Your task to perform on an android device: Add razer blade to the cart on walmart.com, then select checkout. Image 0: 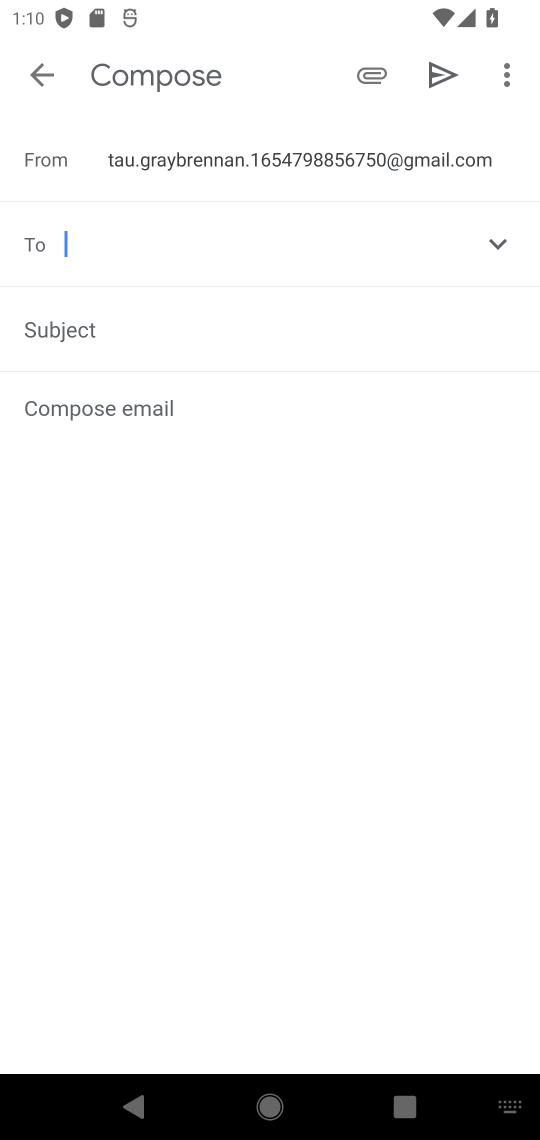
Step 0: press home button
Your task to perform on an android device: Add razer blade to the cart on walmart.com, then select checkout. Image 1: 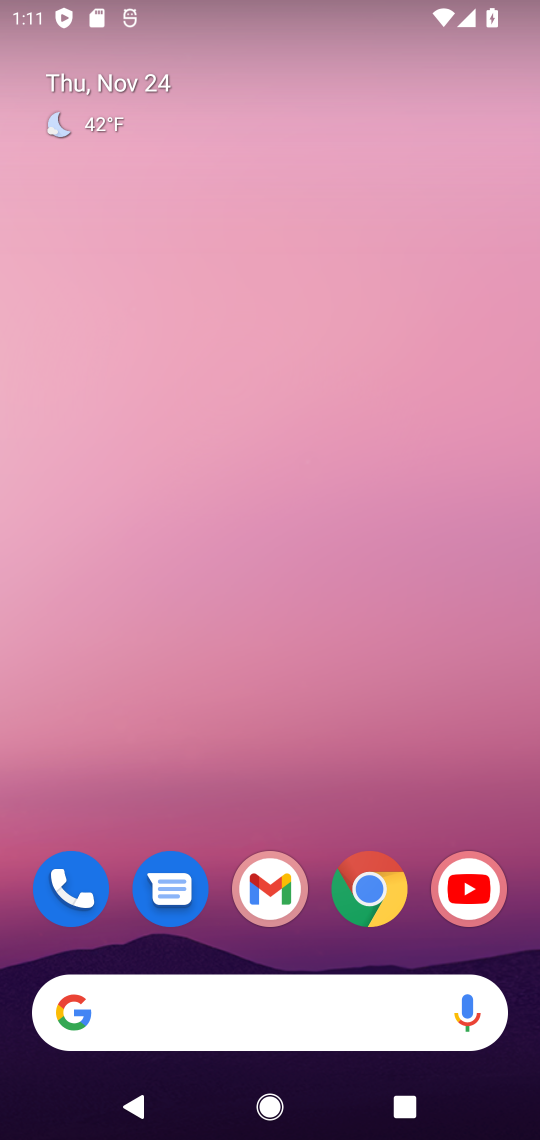
Step 1: click (378, 890)
Your task to perform on an android device: Add razer blade to the cart on walmart.com, then select checkout. Image 2: 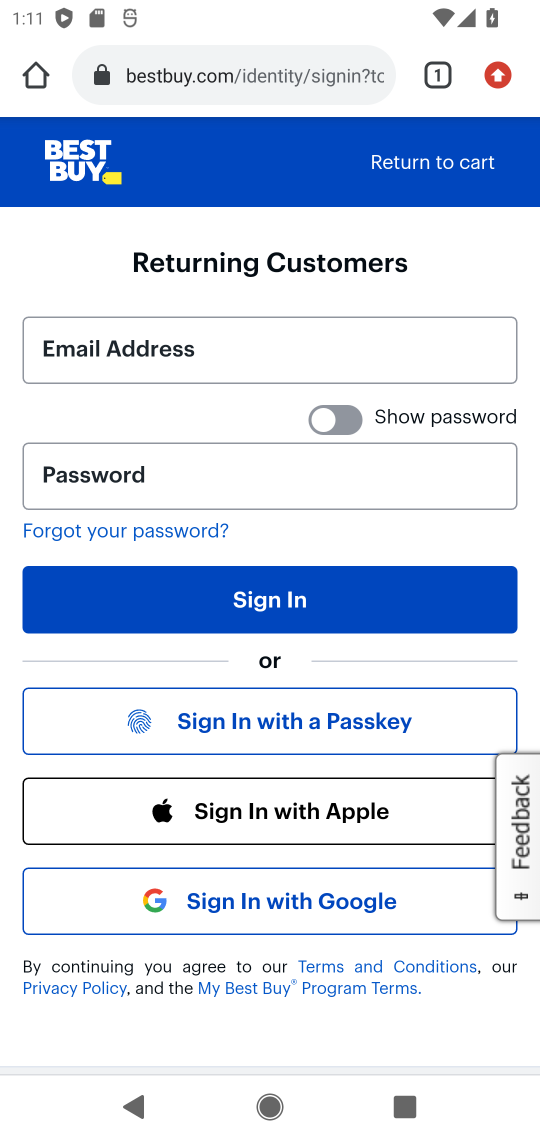
Step 2: click (210, 75)
Your task to perform on an android device: Add razer blade to the cart on walmart.com, then select checkout. Image 3: 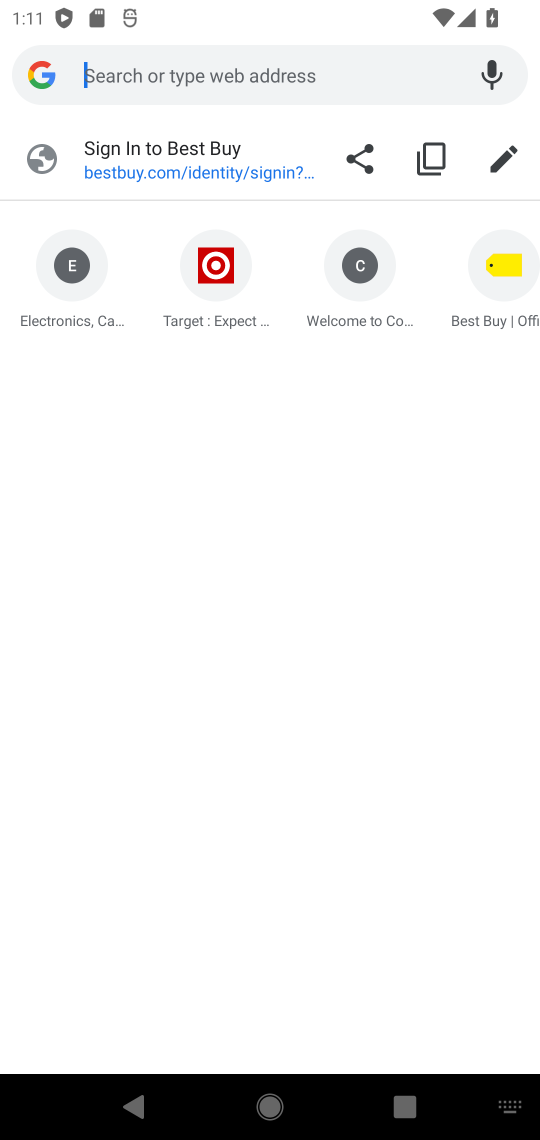
Step 3: type "walmart.com"
Your task to perform on an android device: Add razer blade to the cart on walmart.com, then select checkout. Image 4: 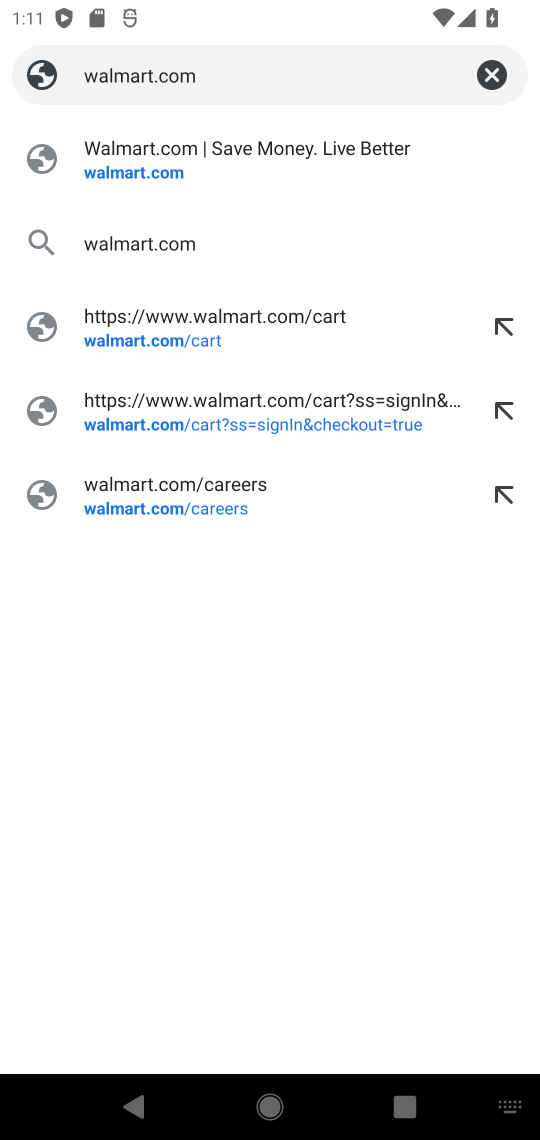
Step 4: click (132, 173)
Your task to perform on an android device: Add razer blade to the cart on walmart.com, then select checkout. Image 5: 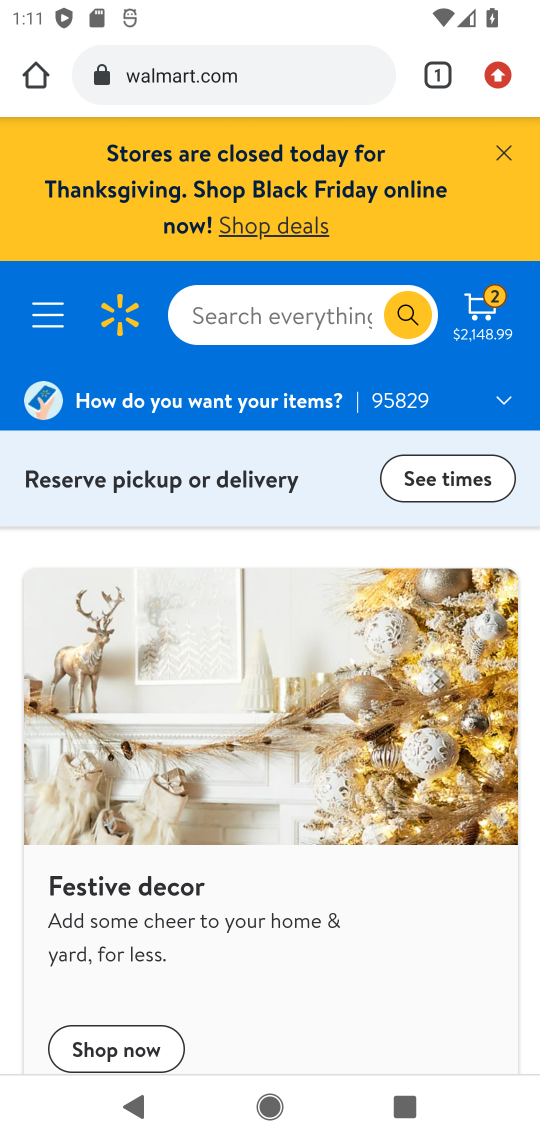
Step 5: click (234, 322)
Your task to perform on an android device: Add razer blade to the cart on walmart.com, then select checkout. Image 6: 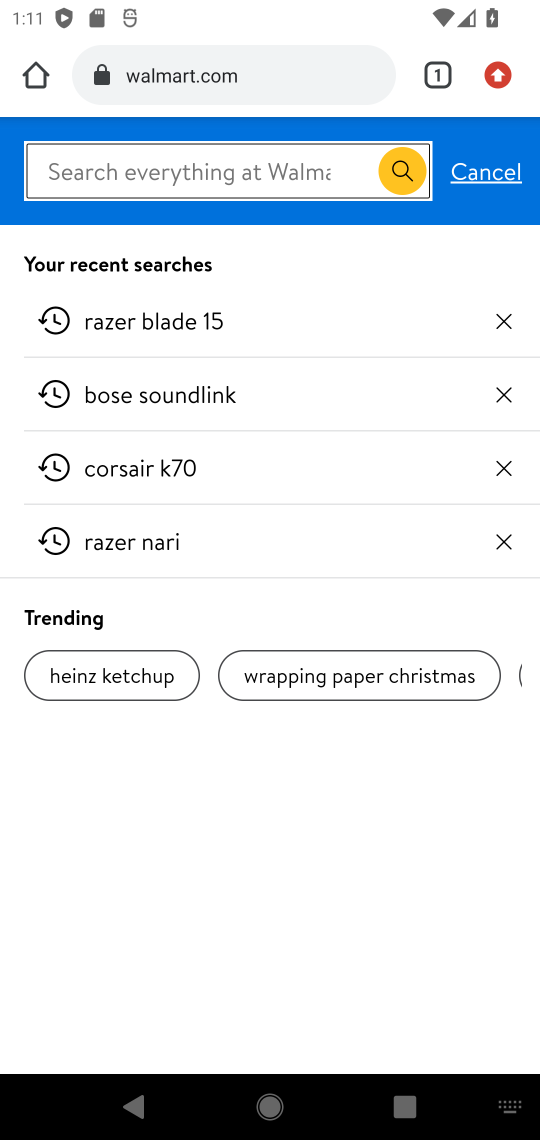
Step 6: type " razer blade"
Your task to perform on an android device: Add razer blade to the cart on walmart.com, then select checkout. Image 7: 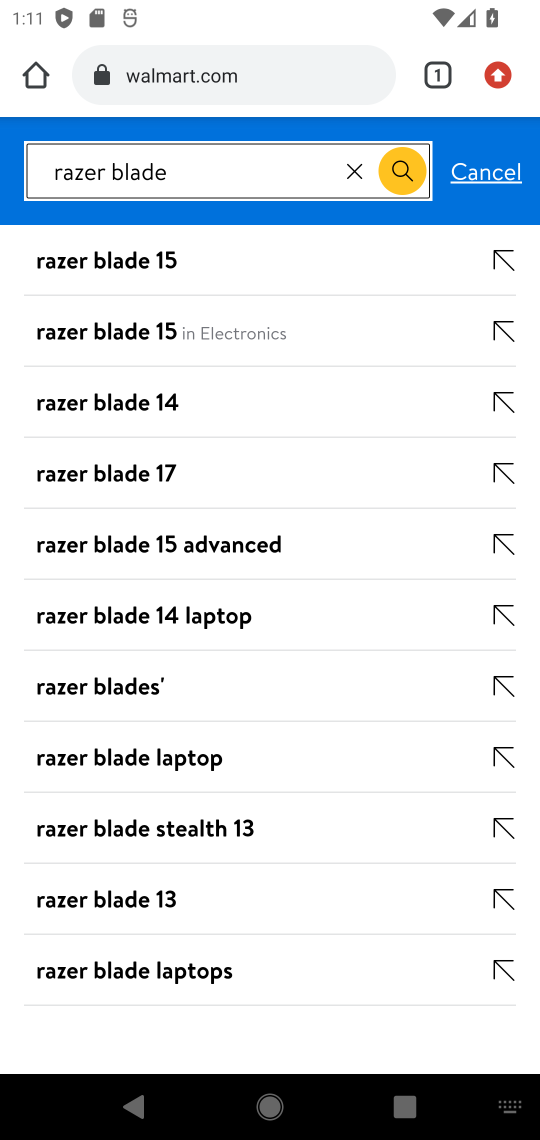
Step 7: click (110, 269)
Your task to perform on an android device: Add razer blade to the cart on walmart.com, then select checkout. Image 8: 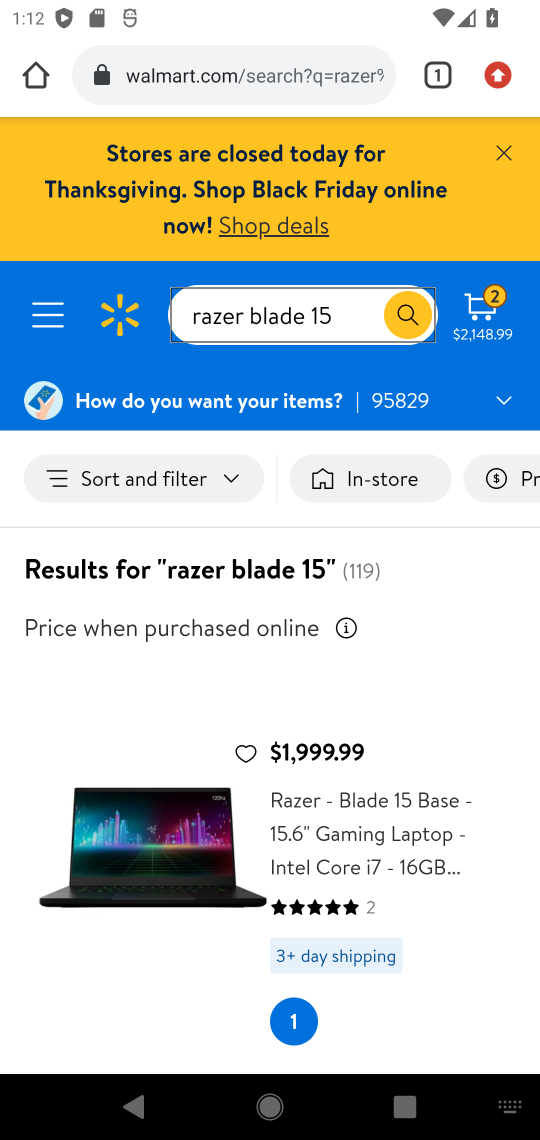
Step 8: drag from (125, 726) to (141, 496)
Your task to perform on an android device: Add razer blade to the cart on walmart.com, then select checkout. Image 9: 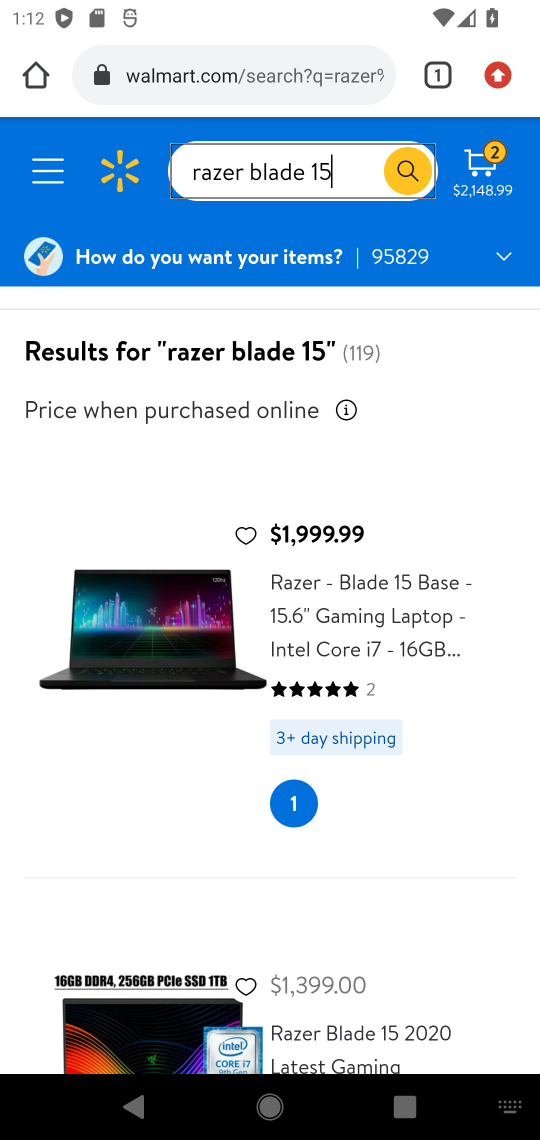
Step 9: drag from (141, 655) to (160, 509)
Your task to perform on an android device: Add razer blade to the cart on walmart.com, then select checkout. Image 10: 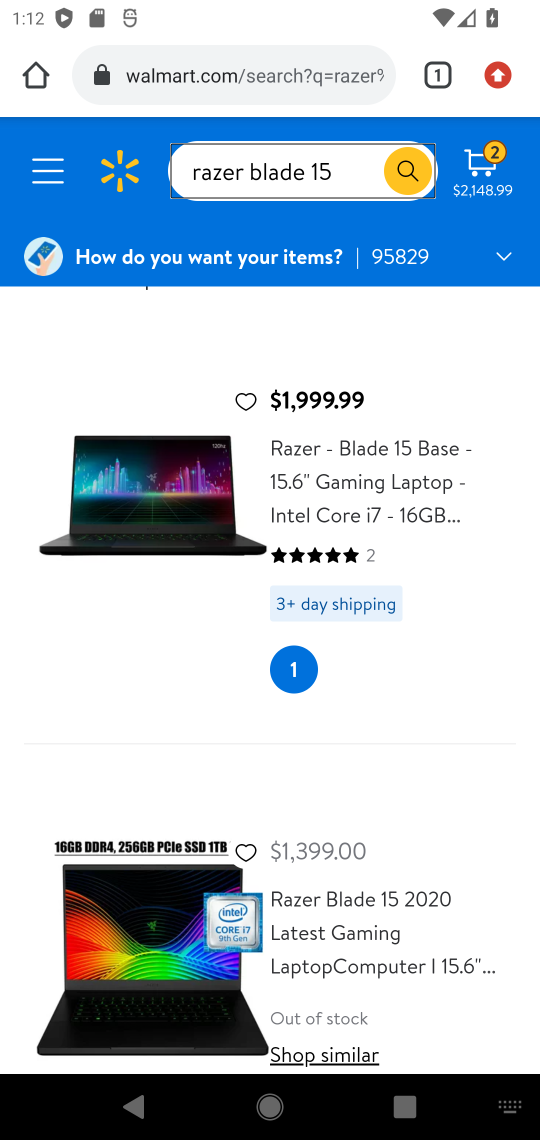
Step 10: click (158, 518)
Your task to perform on an android device: Add razer blade to the cart on walmart.com, then select checkout. Image 11: 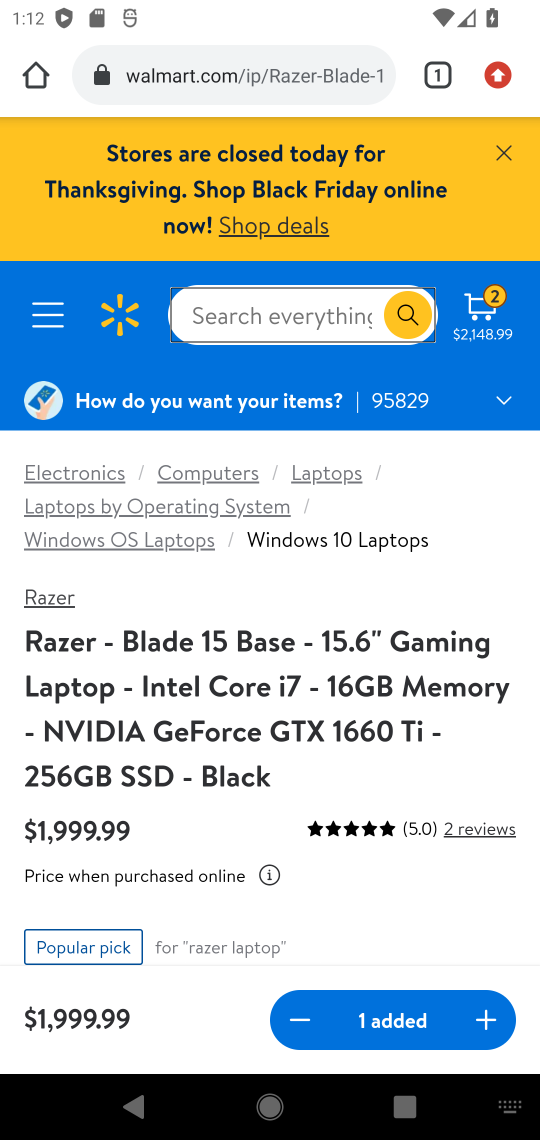
Step 11: click (483, 1022)
Your task to perform on an android device: Add razer blade to the cart on walmart.com, then select checkout. Image 12: 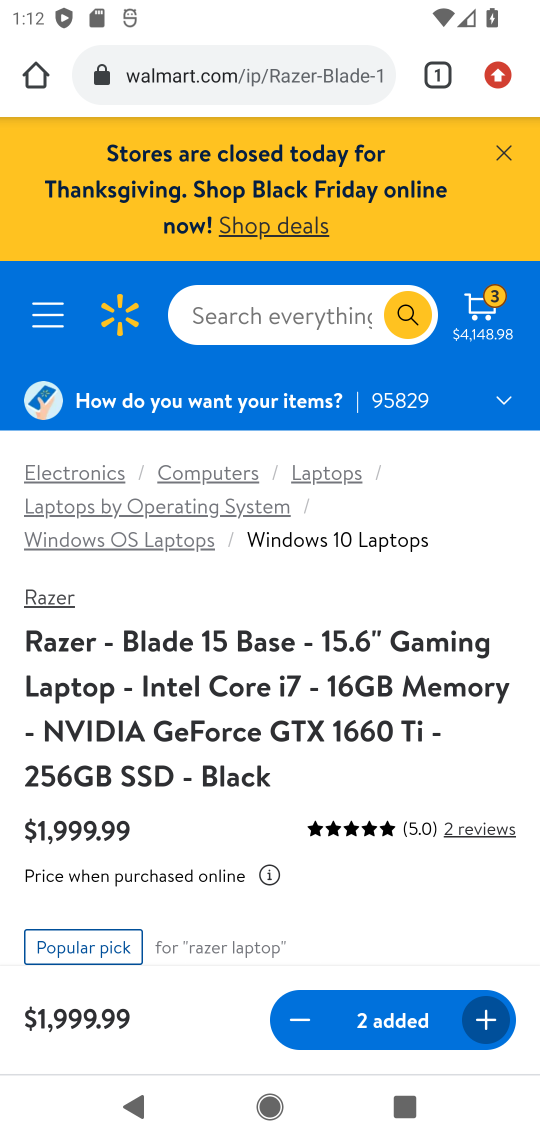
Step 12: click (493, 318)
Your task to perform on an android device: Add razer blade to the cart on walmart.com, then select checkout. Image 13: 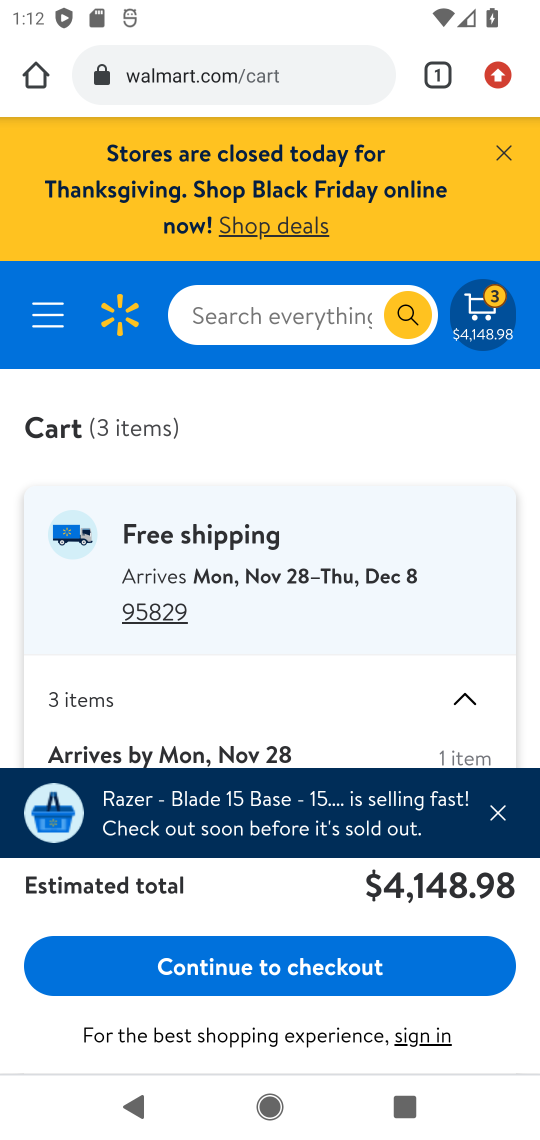
Step 13: click (262, 971)
Your task to perform on an android device: Add razer blade to the cart on walmart.com, then select checkout. Image 14: 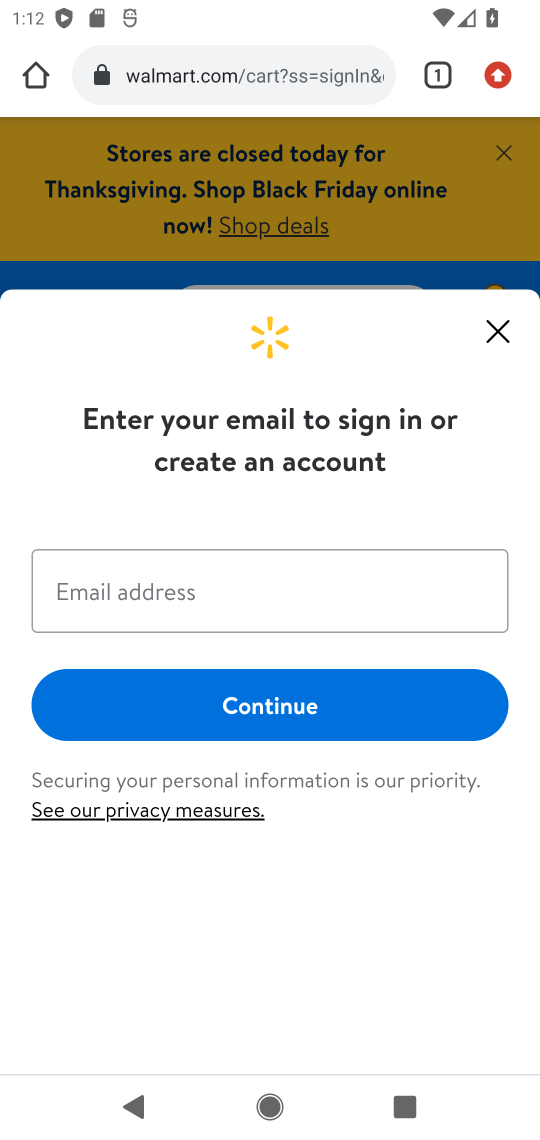
Step 14: task complete